Your task to perform on an android device: star an email in the gmail app Image 0: 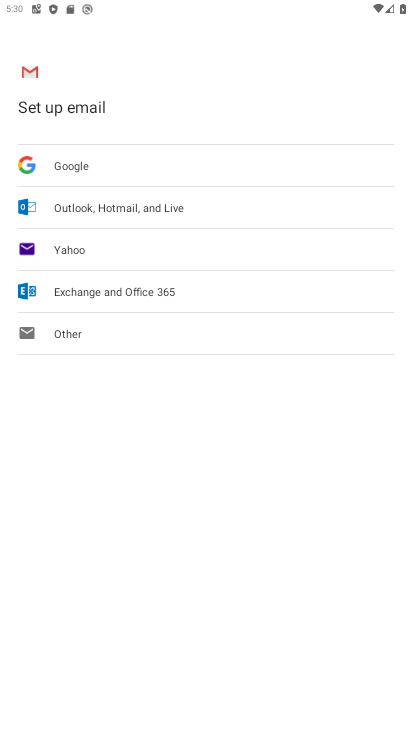
Step 0: press home button
Your task to perform on an android device: star an email in the gmail app Image 1: 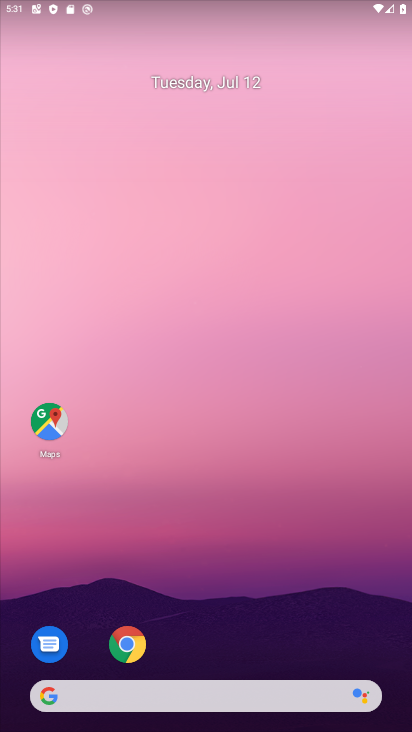
Step 1: drag from (206, 616) to (195, 195)
Your task to perform on an android device: star an email in the gmail app Image 2: 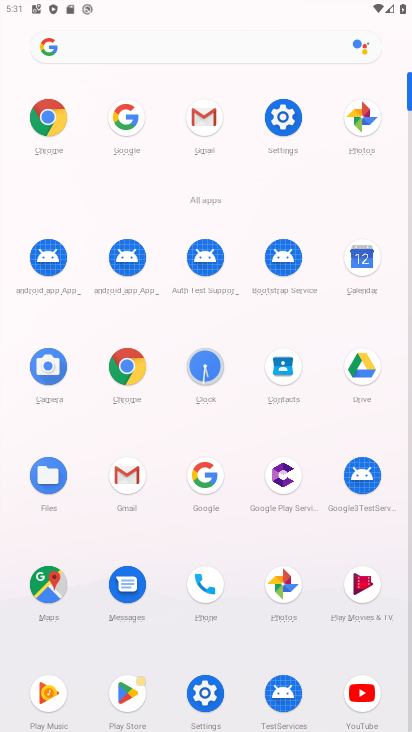
Step 2: click (200, 123)
Your task to perform on an android device: star an email in the gmail app Image 3: 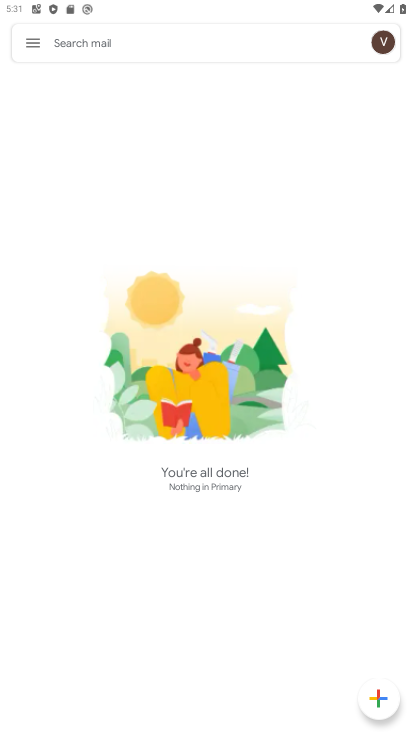
Step 3: click (29, 39)
Your task to perform on an android device: star an email in the gmail app Image 4: 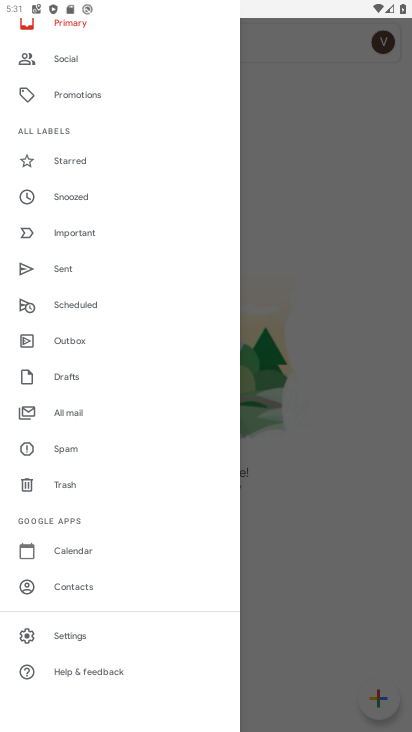
Step 4: click (82, 247)
Your task to perform on an android device: star an email in the gmail app Image 5: 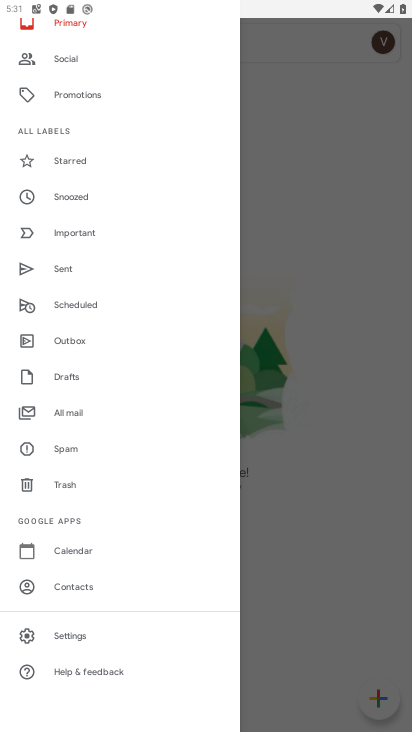
Step 5: click (58, 166)
Your task to perform on an android device: star an email in the gmail app Image 6: 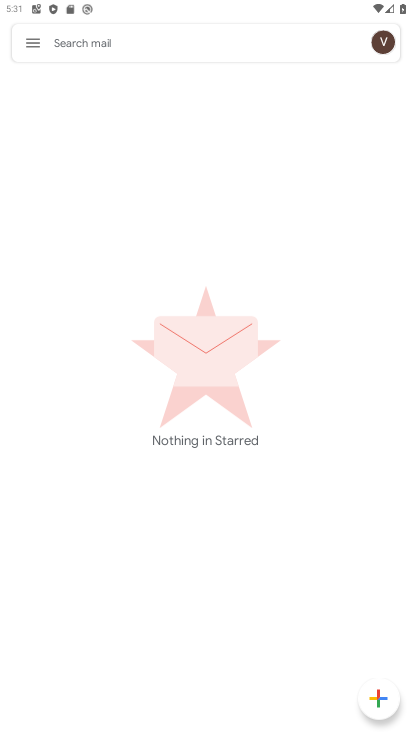
Step 6: task complete